Your task to perform on an android device: Find coffee shops on Maps Image 0: 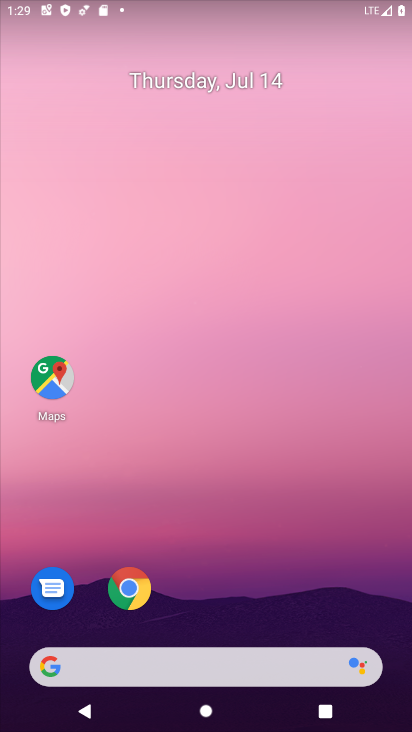
Step 0: click (61, 379)
Your task to perform on an android device: Find coffee shops on Maps Image 1: 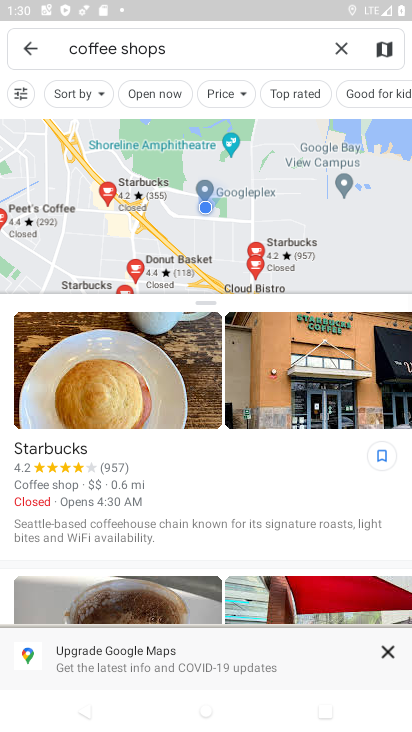
Step 1: task complete